Your task to perform on an android device: turn off improve location accuracy Image 0: 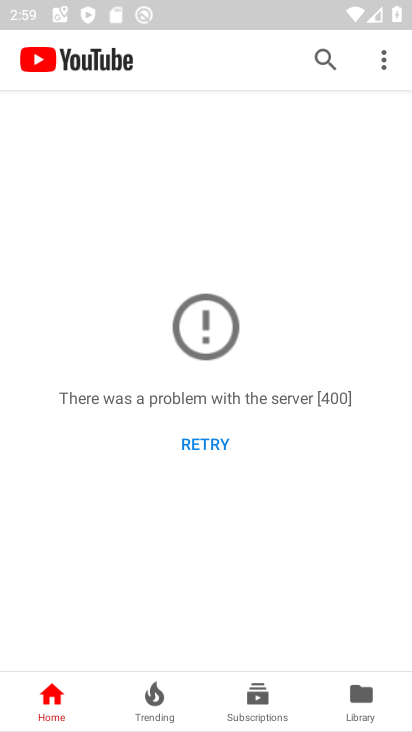
Step 0: press home button
Your task to perform on an android device: turn off improve location accuracy Image 1: 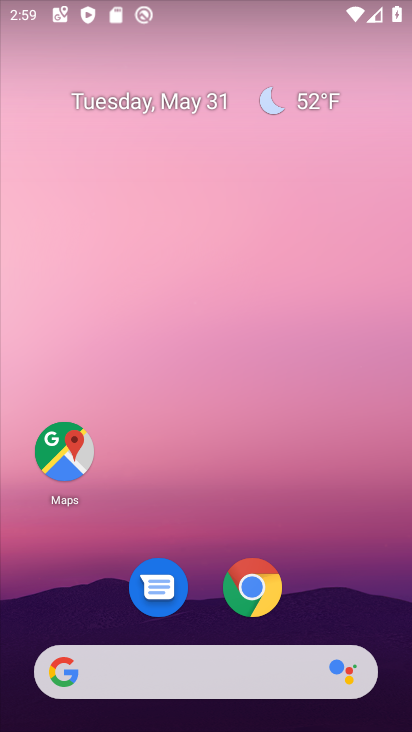
Step 1: click (233, 159)
Your task to perform on an android device: turn off improve location accuracy Image 2: 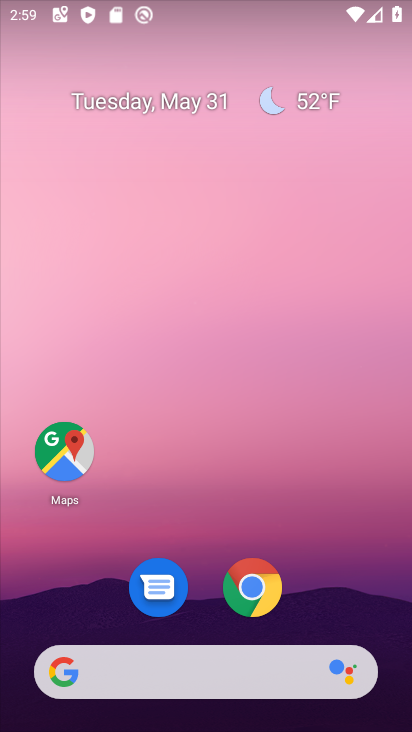
Step 2: drag from (350, 624) to (277, 161)
Your task to perform on an android device: turn off improve location accuracy Image 3: 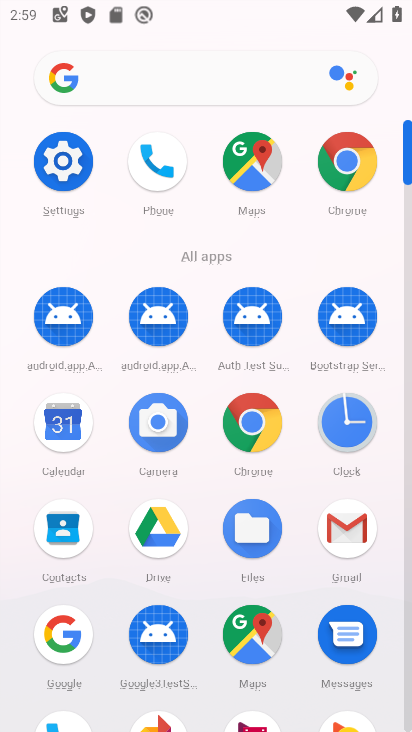
Step 3: click (80, 178)
Your task to perform on an android device: turn off improve location accuracy Image 4: 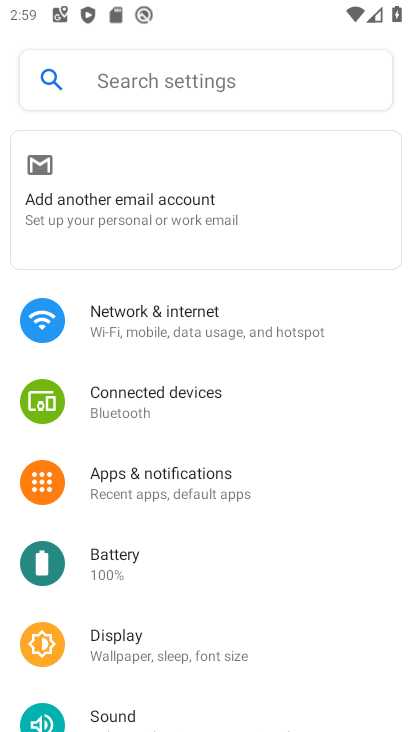
Step 4: drag from (222, 681) to (224, 208)
Your task to perform on an android device: turn off improve location accuracy Image 5: 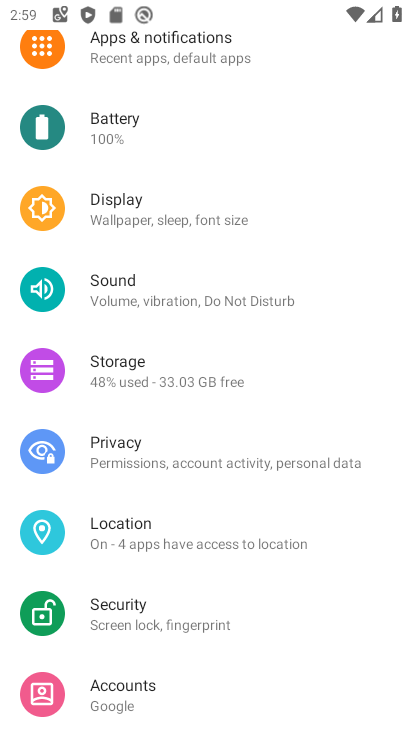
Step 5: click (199, 532)
Your task to perform on an android device: turn off improve location accuracy Image 6: 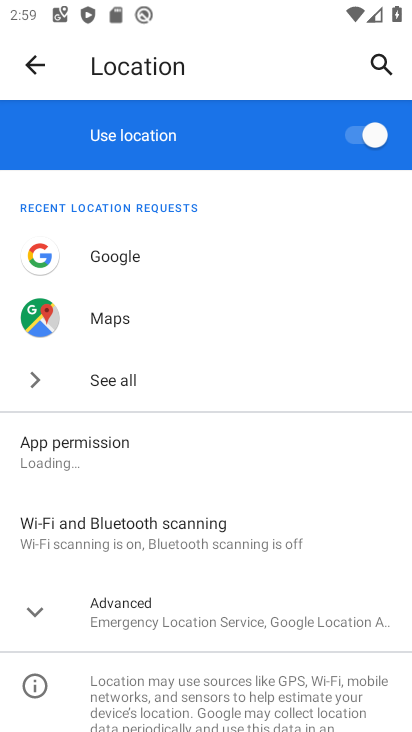
Step 6: click (185, 620)
Your task to perform on an android device: turn off improve location accuracy Image 7: 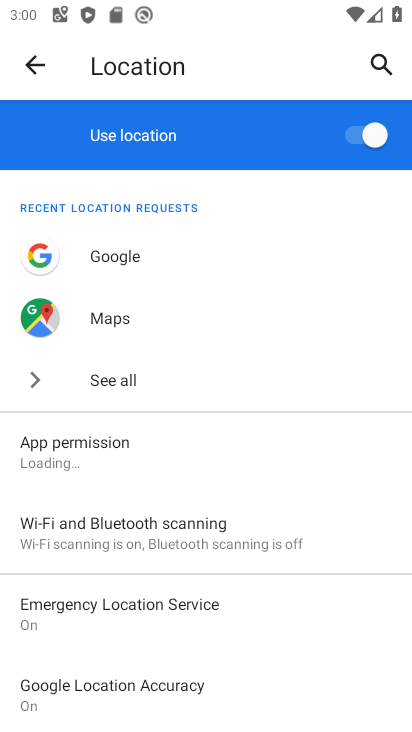
Step 7: drag from (209, 644) to (206, 235)
Your task to perform on an android device: turn off improve location accuracy Image 8: 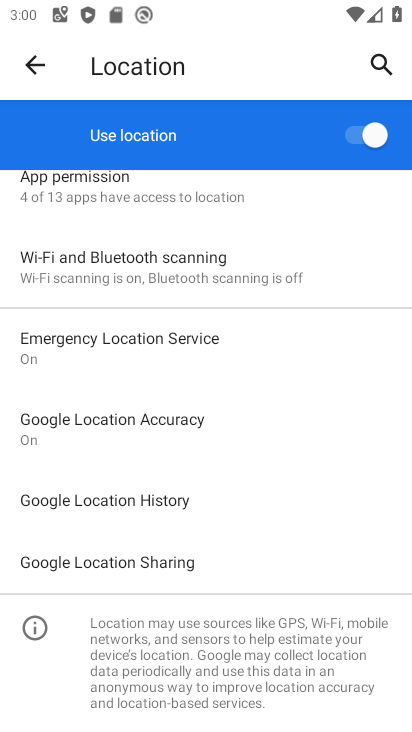
Step 8: click (220, 421)
Your task to perform on an android device: turn off improve location accuracy Image 9: 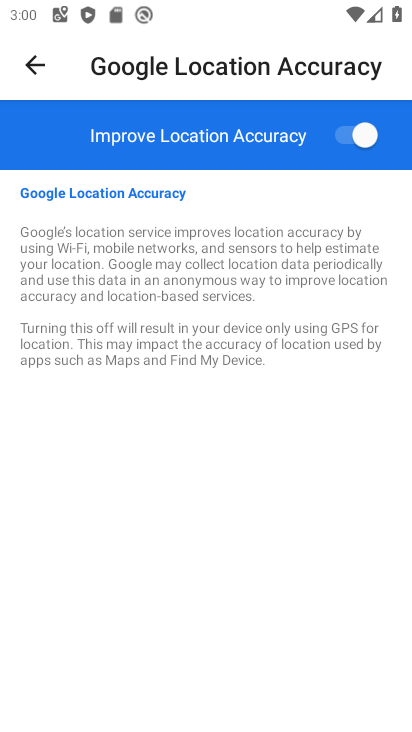
Step 9: click (353, 127)
Your task to perform on an android device: turn off improve location accuracy Image 10: 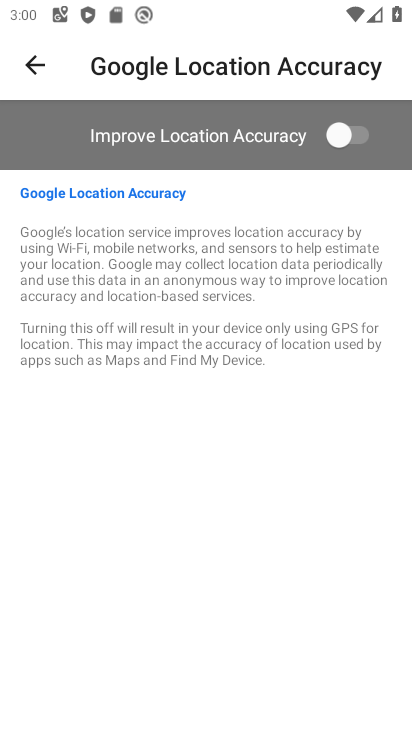
Step 10: task complete